Your task to perform on an android device: Go to Maps Image 0: 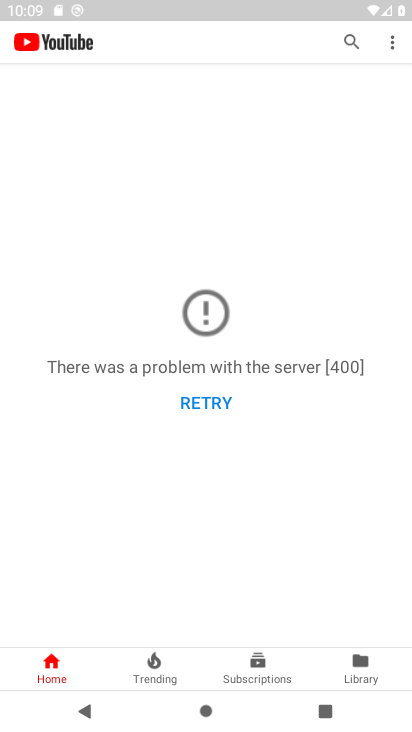
Step 0: press home button
Your task to perform on an android device: Go to Maps Image 1: 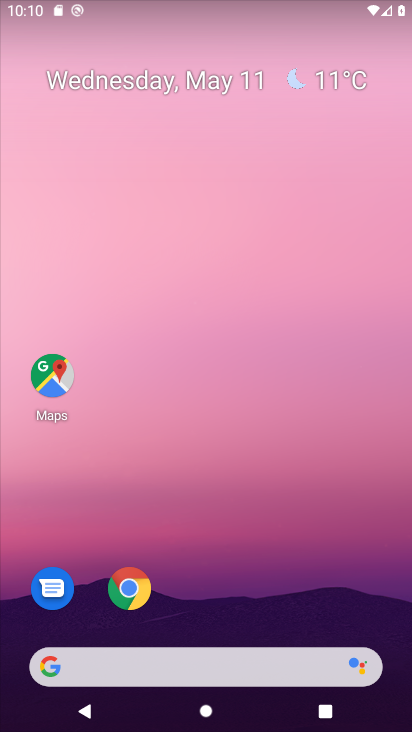
Step 1: click (31, 390)
Your task to perform on an android device: Go to Maps Image 2: 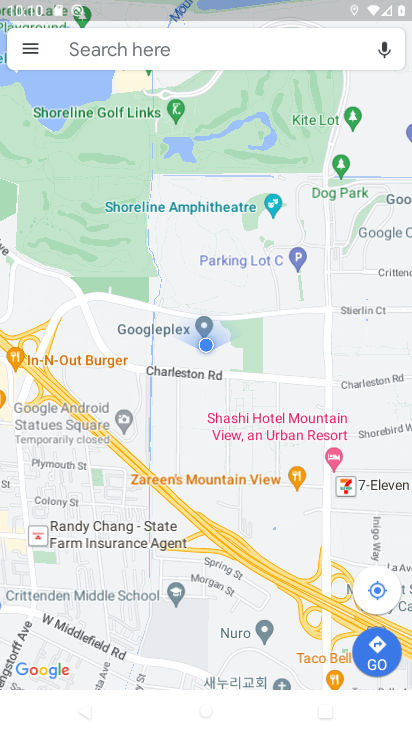
Step 2: task complete